Your task to perform on an android device: delete the emails in spam in the gmail app Image 0: 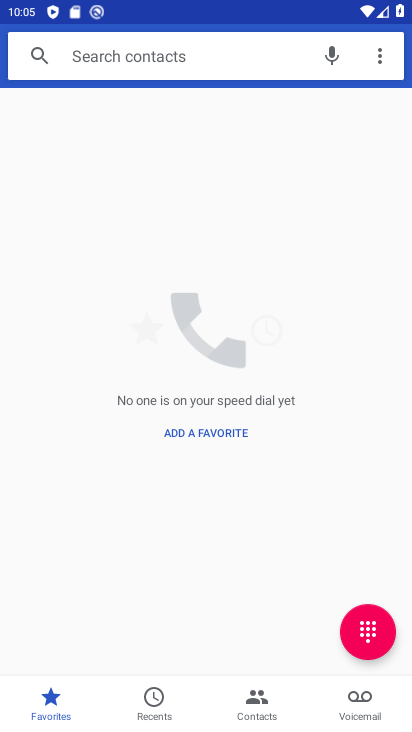
Step 0: press back button
Your task to perform on an android device: delete the emails in spam in the gmail app Image 1: 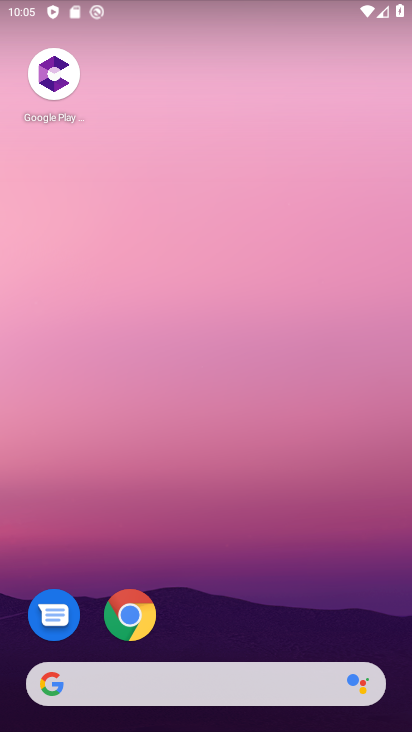
Step 1: drag from (241, 588) to (230, 85)
Your task to perform on an android device: delete the emails in spam in the gmail app Image 2: 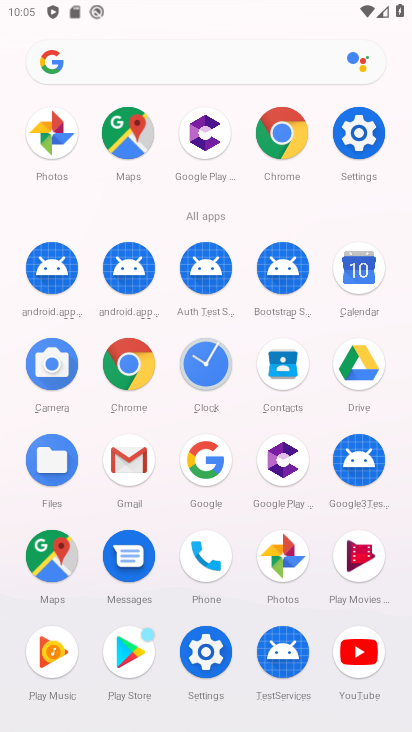
Step 2: click (126, 460)
Your task to perform on an android device: delete the emails in spam in the gmail app Image 3: 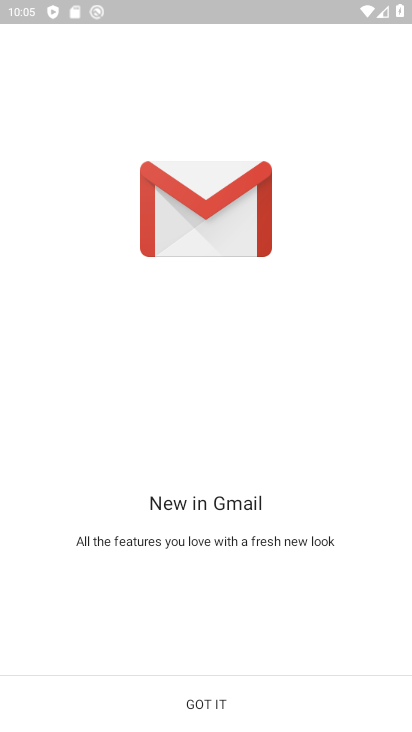
Step 3: click (200, 704)
Your task to perform on an android device: delete the emails in spam in the gmail app Image 4: 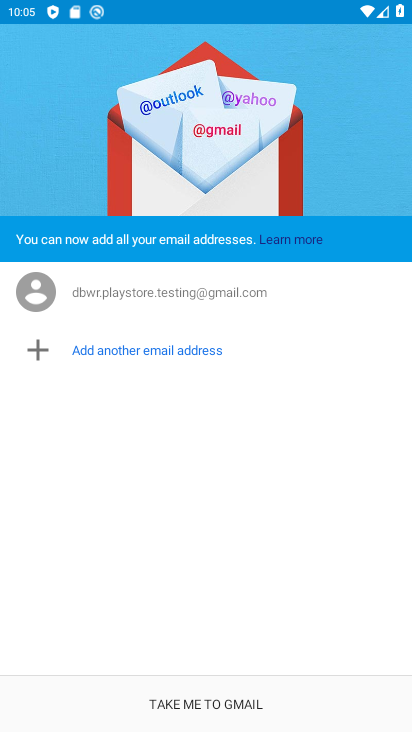
Step 4: click (200, 704)
Your task to perform on an android device: delete the emails in spam in the gmail app Image 5: 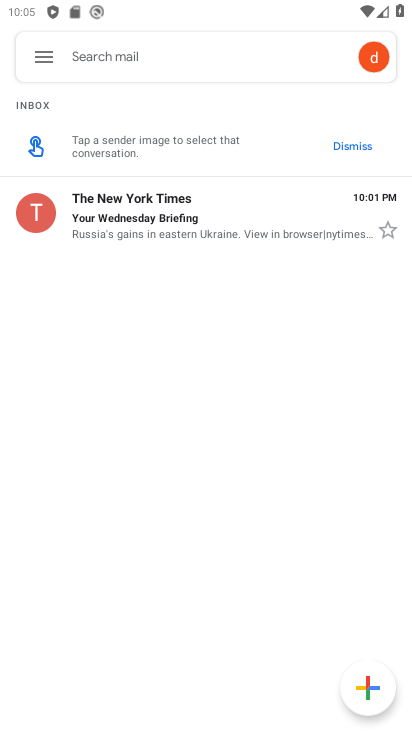
Step 5: click (46, 56)
Your task to perform on an android device: delete the emails in spam in the gmail app Image 6: 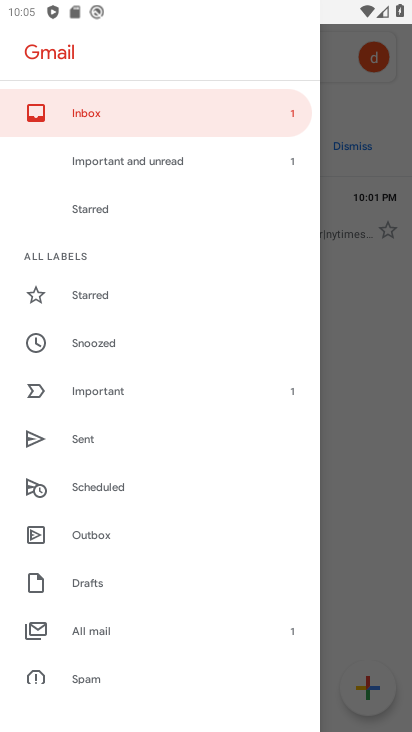
Step 6: click (82, 677)
Your task to perform on an android device: delete the emails in spam in the gmail app Image 7: 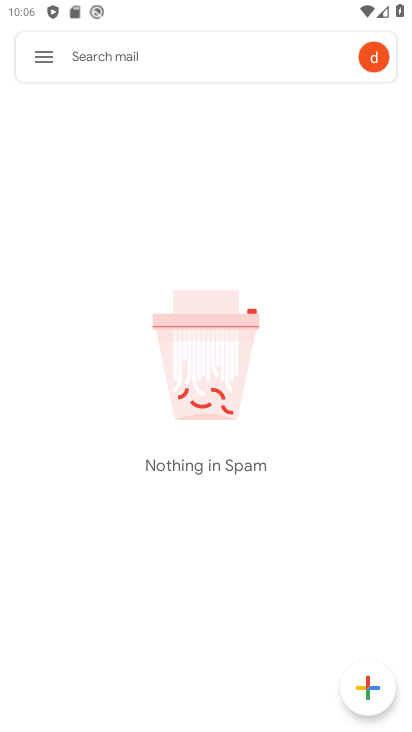
Step 7: task complete